Your task to perform on an android device: allow cookies in the chrome app Image 0: 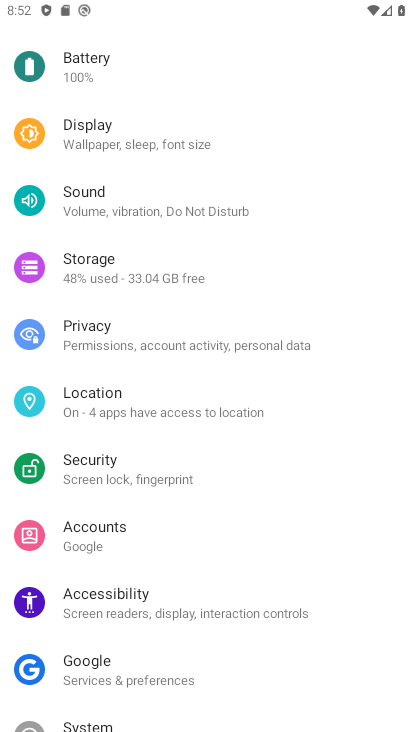
Step 0: press home button
Your task to perform on an android device: allow cookies in the chrome app Image 1: 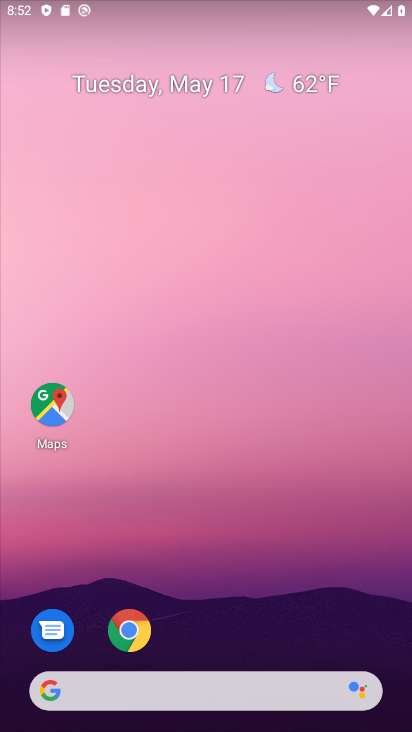
Step 1: click (136, 639)
Your task to perform on an android device: allow cookies in the chrome app Image 2: 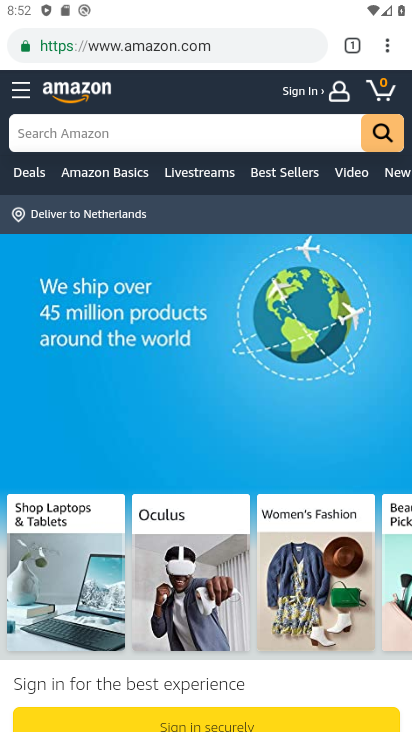
Step 2: click (383, 50)
Your task to perform on an android device: allow cookies in the chrome app Image 3: 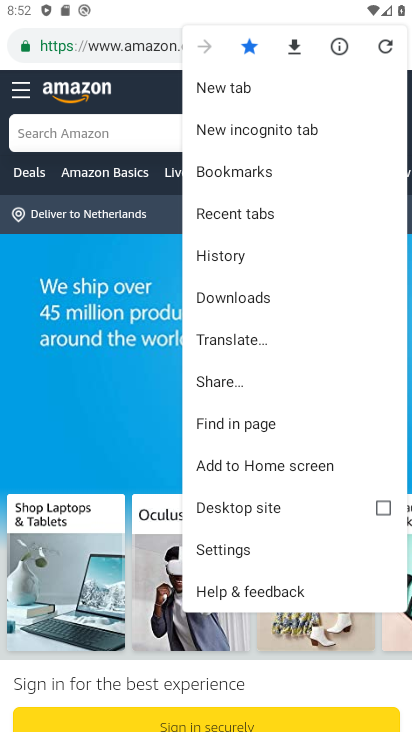
Step 3: click (251, 548)
Your task to perform on an android device: allow cookies in the chrome app Image 4: 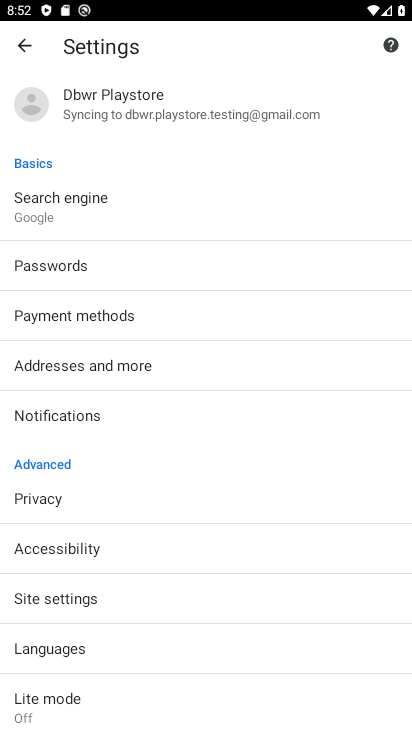
Step 4: click (69, 601)
Your task to perform on an android device: allow cookies in the chrome app Image 5: 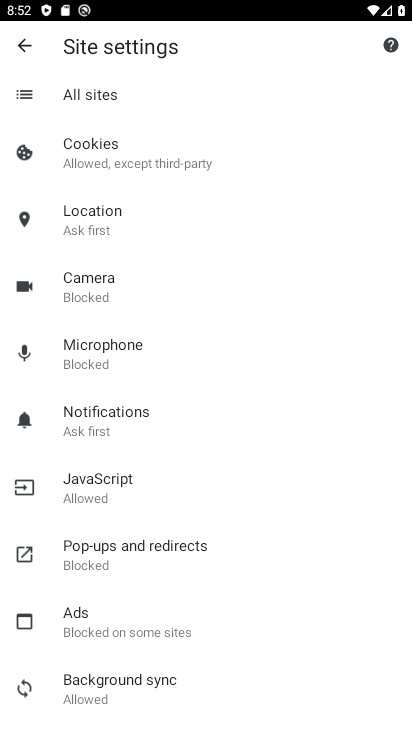
Step 5: click (96, 169)
Your task to perform on an android device: allow cookies in the chrome app Image 6: 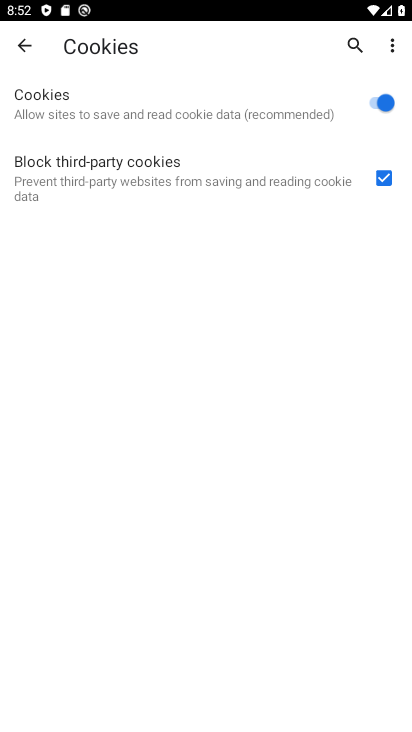
Step 6: task complete